Your task to perform on an android device: add a contact Image 0: 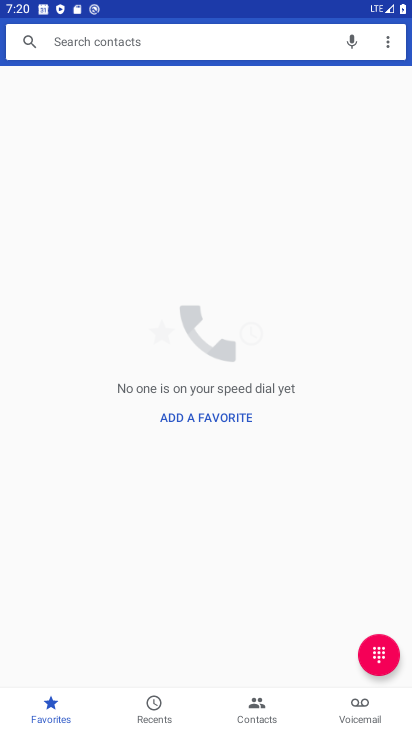
Step 0: press home button
Your task to perform on an android device: add a contact Image 1: 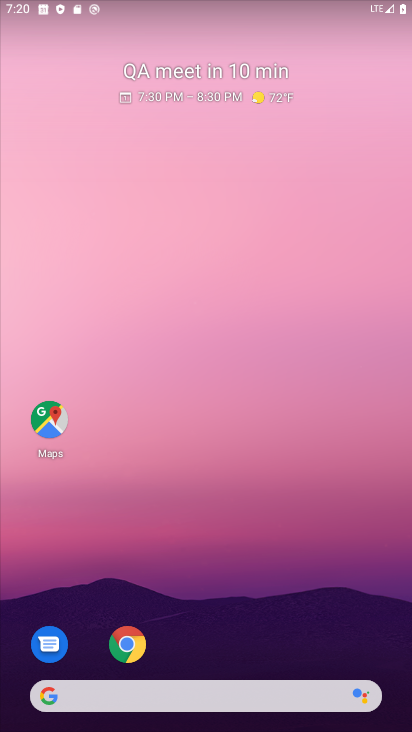
Step 1: drag from (258, 720) to (137, 177)
Your task to perform on an android device: add a contact Image 2: 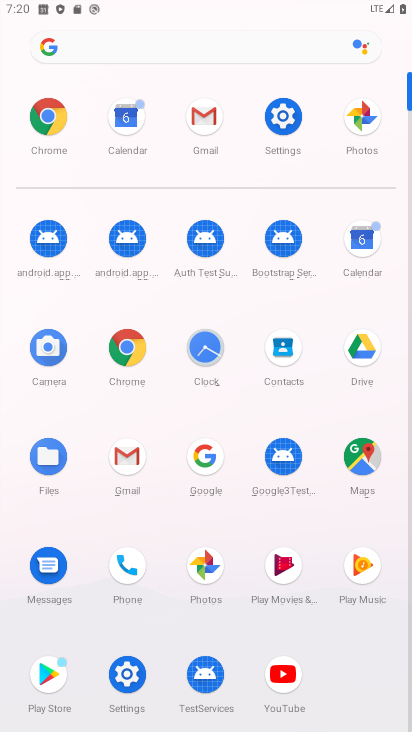
Step 2: click (118, 571)
Your task to perform on an android device: add a contact Image 3: 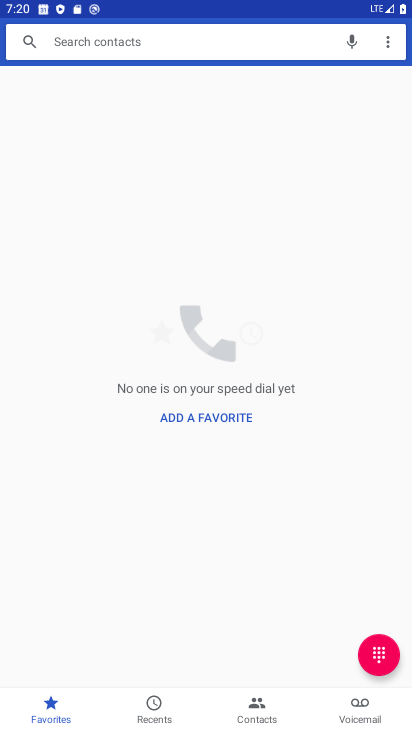
Step 3: click (274, 715)
Your task to perform on an android device: add a contact Image 4: 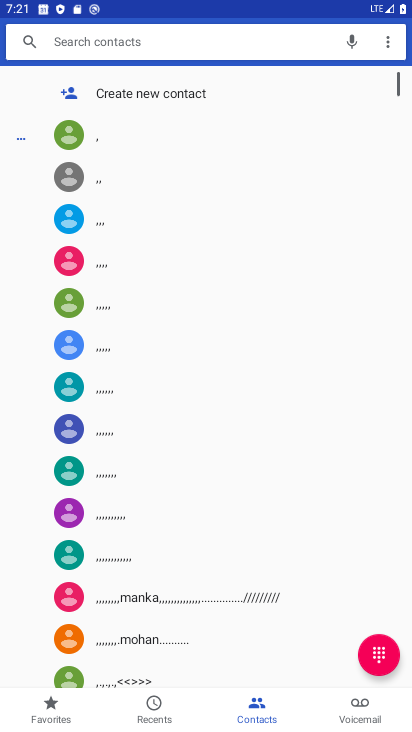
Step 4: click (152, 102)
Your task to perform on an android device: add a contact Image 5: 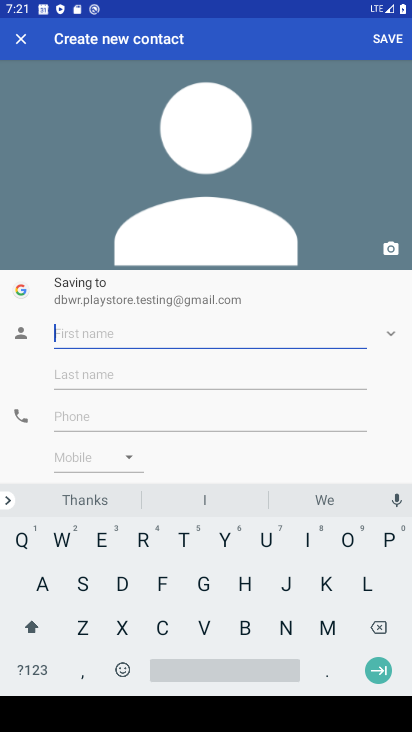
Step 5: click (237, 530)
Your task to perform on an android device: add a contact Image 6: 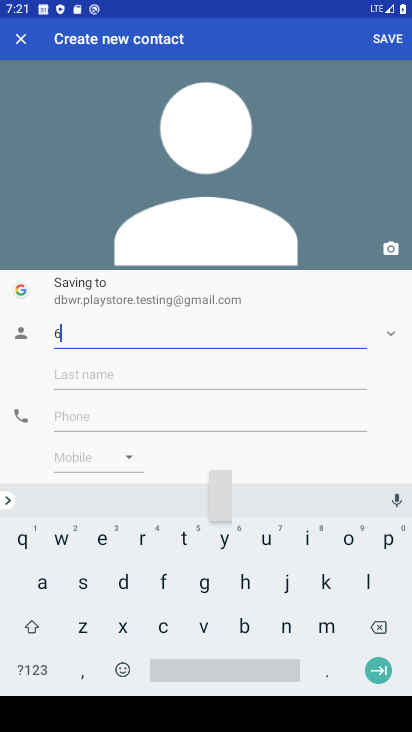
Step 6: click (110, 551)
Your task to perform on an android device: add a contact Image 7: 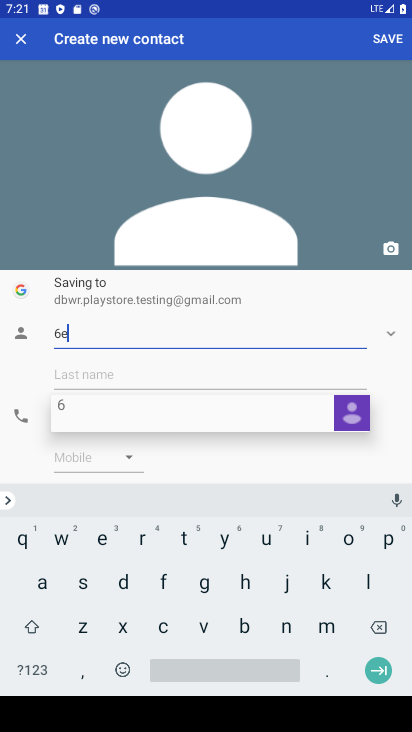
Step 7: click (115, 587)
Your task to perform on an android device: add a contact Image 8: 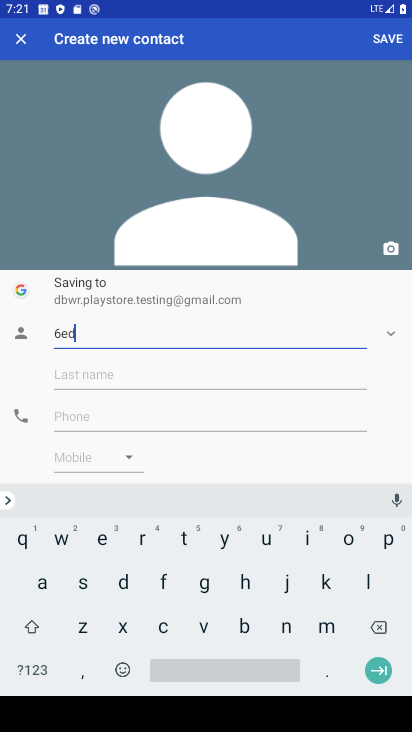
Step 8: click (109, 425)
Your task to perform on an android device: add a contact Image 9: 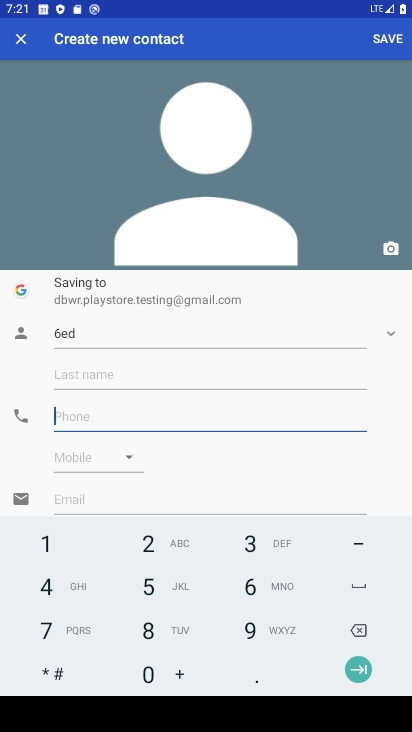
Step 9: click (154, 554)
Your task to perform on an android device: add a contact Image 10: 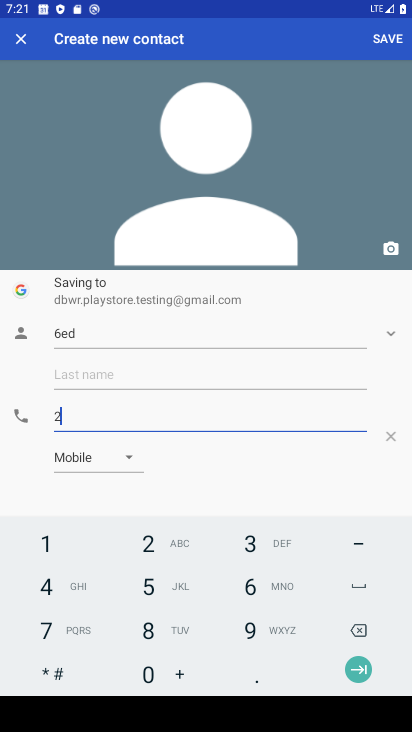
Step 10: drag from (61, 584) to (135, 633)
Your task to perform on an android device: add a contact Image 11: 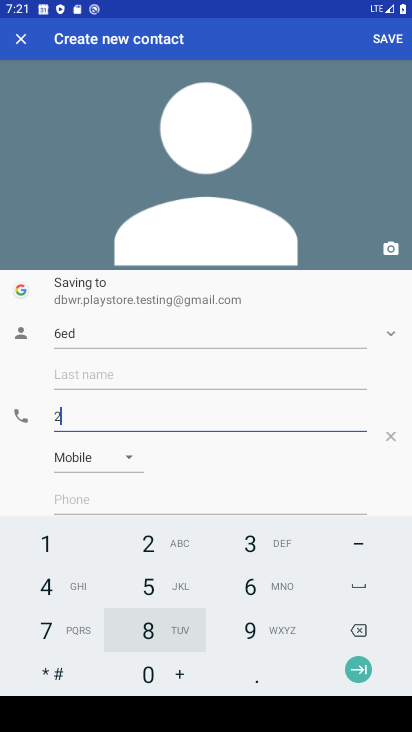
Step 11: click (231, 590)
Your task to perform on an android device: add a contact Image 12: 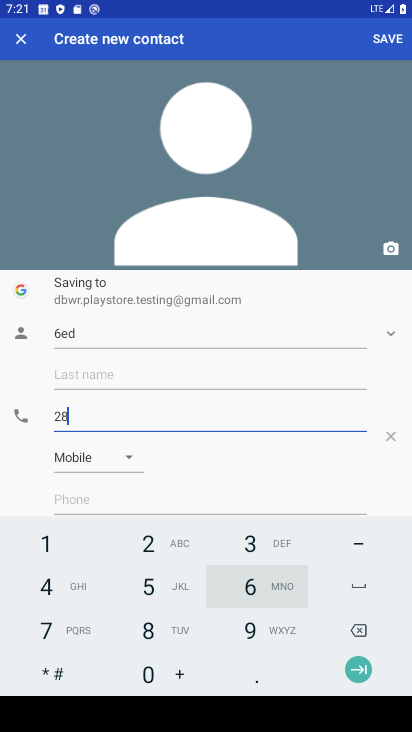
Step 12: click (181, 582)
Your task to perform on an android device: add a contact Image 13: 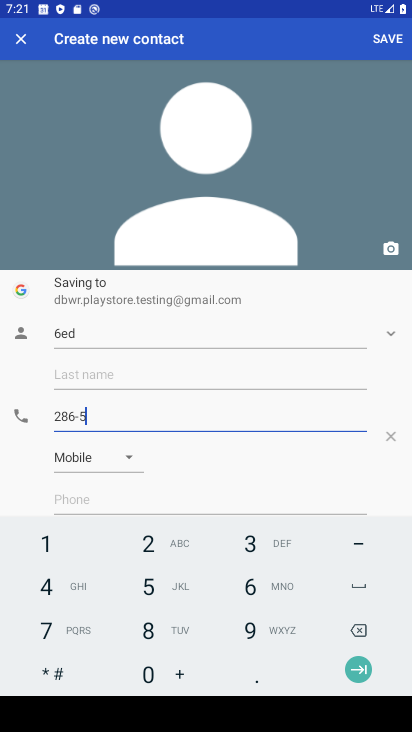
Step 13: click (387, 37)
Your task to perform on an android device: add a contact Image 14: 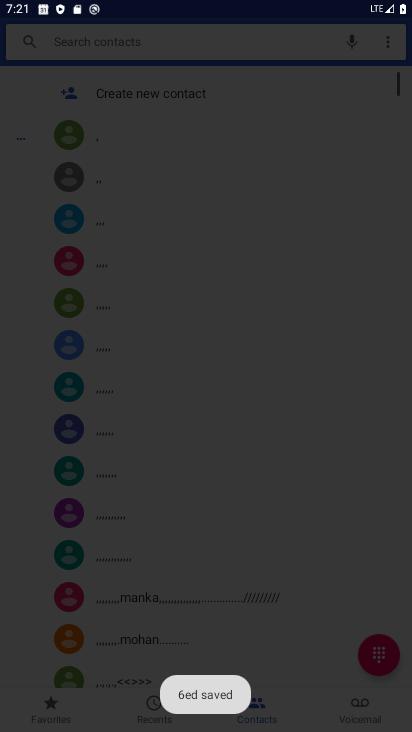
Step 14: task complete